Your task to perform on an android device: set the stopwatch Image 0: 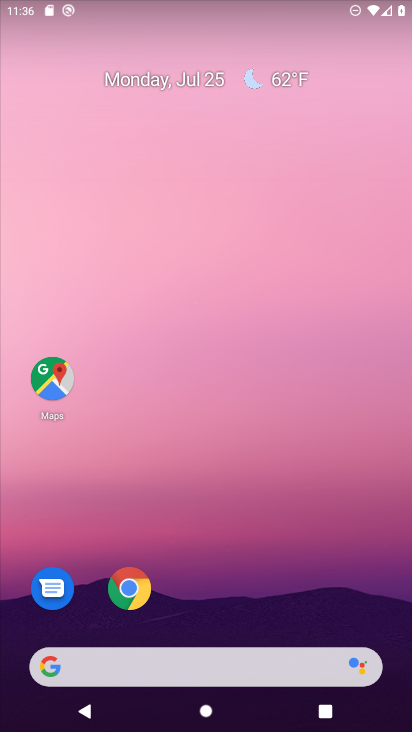
Step 0: drag from (56, 597) to (244, 98)
Your task to perform on an android device: set the stopwatch Image 1: 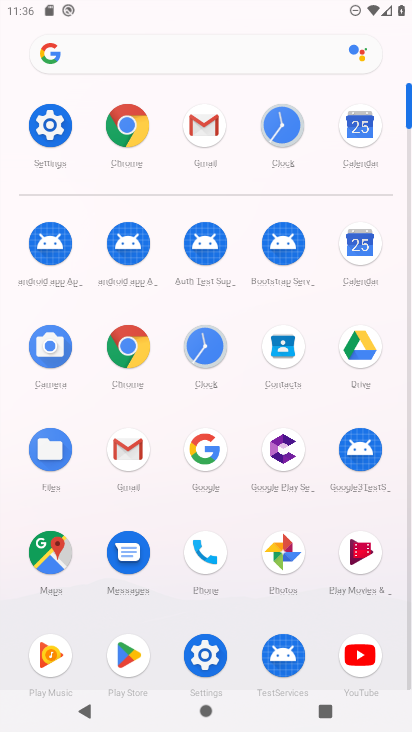
Step 1: click (300, 125)
Your task to perform on an android device: set the stopwatch Image 2: 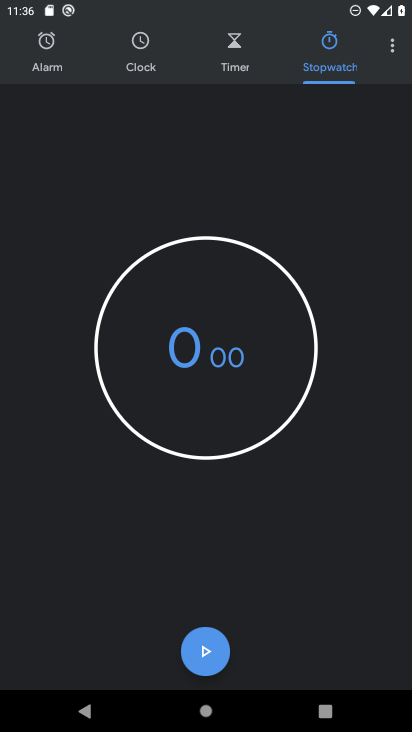
Step 2: click (205, 636)
Your task to perform on an android device: set the stopwatch Image 3: 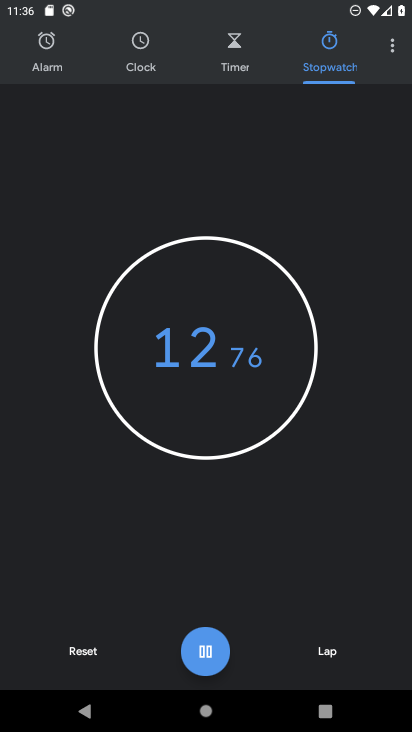
Step 3: task complete